Your task to perform on an android device: find snoozed emails in the gmail app Image 0: 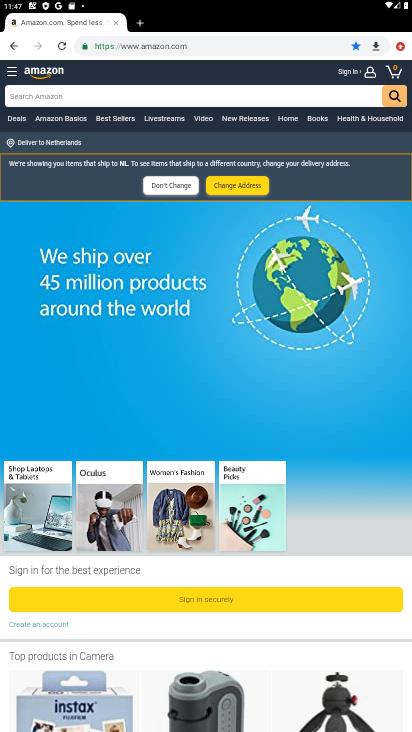
Step 0: press home button
Your task to perform on an android device: find snoozed emails in the gmail app Image 1: 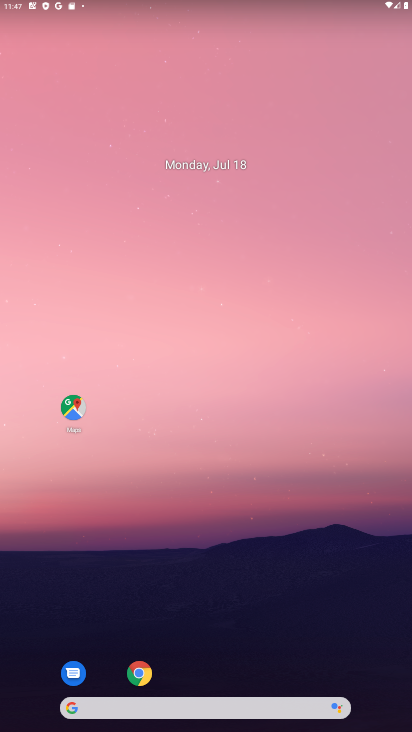
Step 1: drag from (216, 452) to (246, 128)
Your task to perform on an android device: find snoozed emails in the gmail app Image 2: 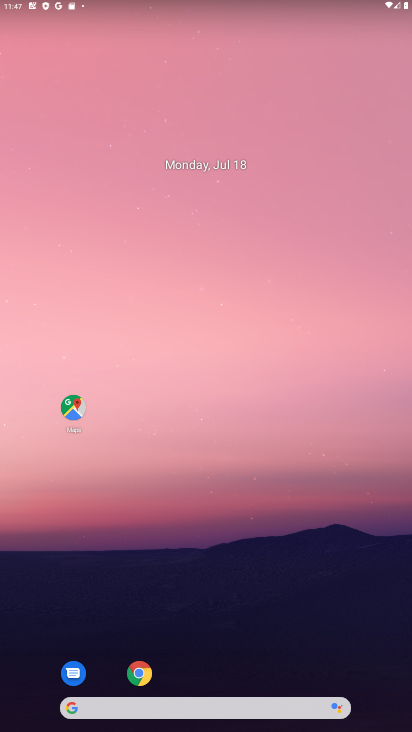
Step 2: drag from (253, 731) to (251, 127)
Your task to perform on an android device: find snoozed emails in the gmail app Image 3: 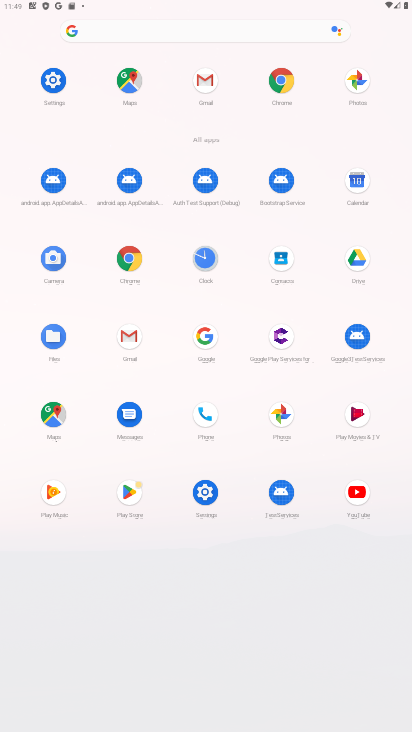
Step 3: click (137, 329)
Your task to perform on an android device: find snoozed emails in the gmail app Image 4: 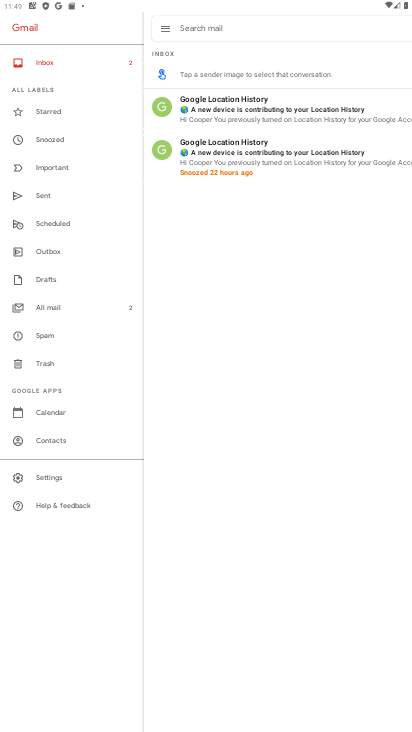
Step 4: click (66, 138)
Your task to perform on an android device: find snoozed emails in the gmail app Image 5: 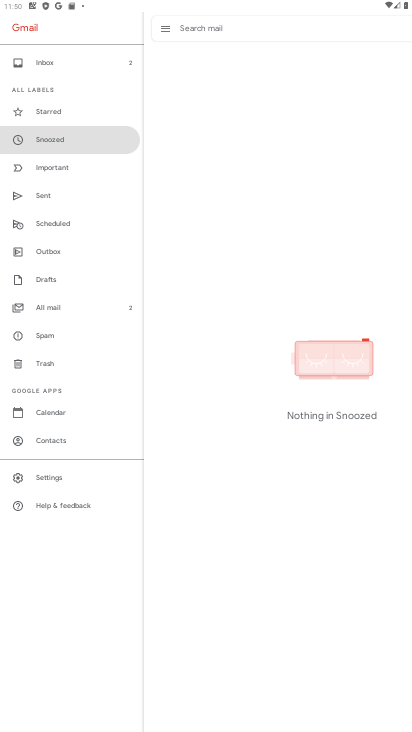
Step 5: task complete